Your task to perform on an android device: open app "Venmo" Image 0: 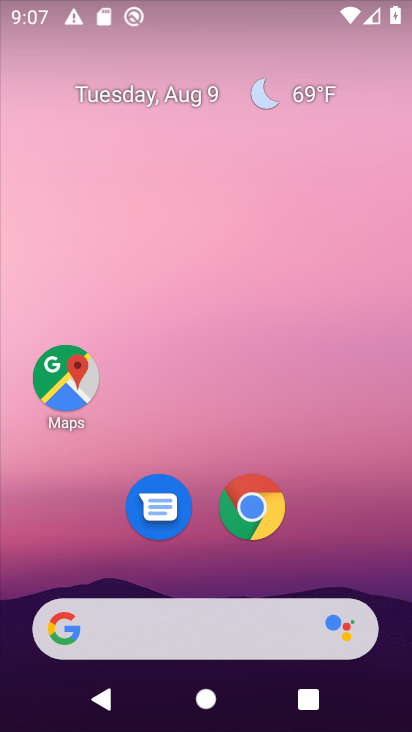
Step 0: press home button
Your task to perform on an android device: open app "Venmo" Image 1: 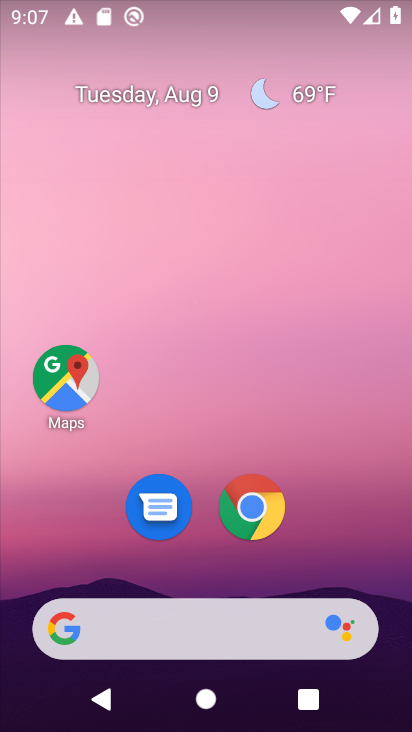
Step 1: drag from (243, 630) to (205, 77)
Your task to perform on an android device: open app "Venmo" Image 2: 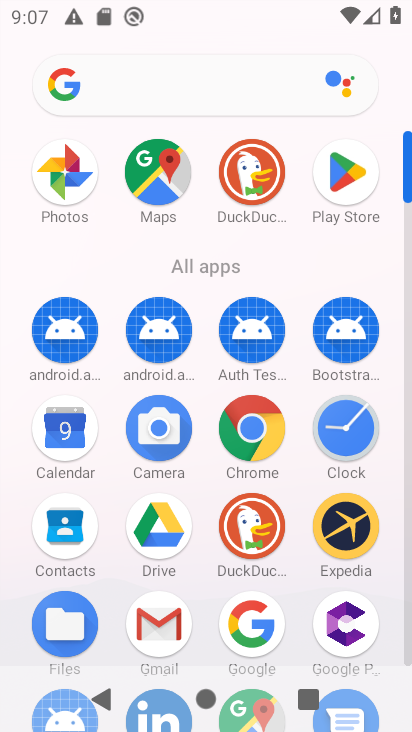
Step 2: click (342, 173)
Your task to perform on an android device: open app "Venmo" Image 3: 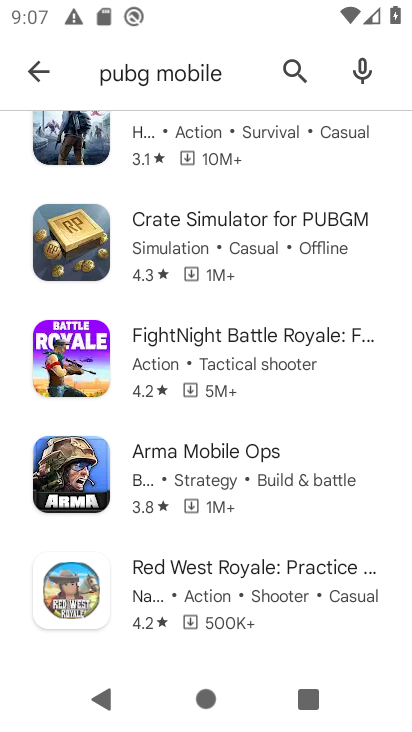
Step 3: click (294, 69)
Your task to perform on an android device: open app "Venmo" Image 4: 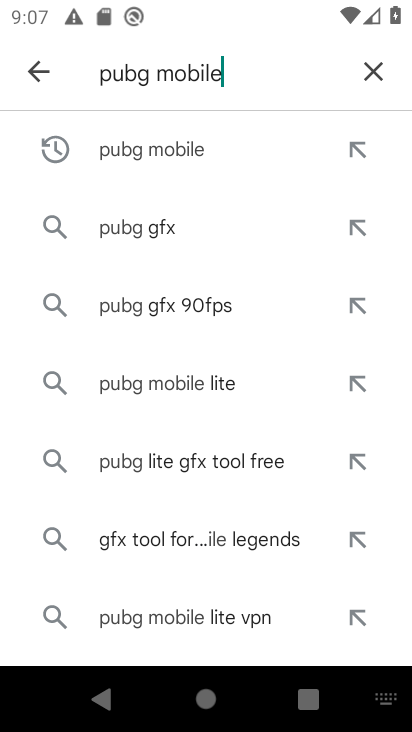
Step 4: click (369, 75)
Your task to perform on an android device: open app "Venmo" Image 5: 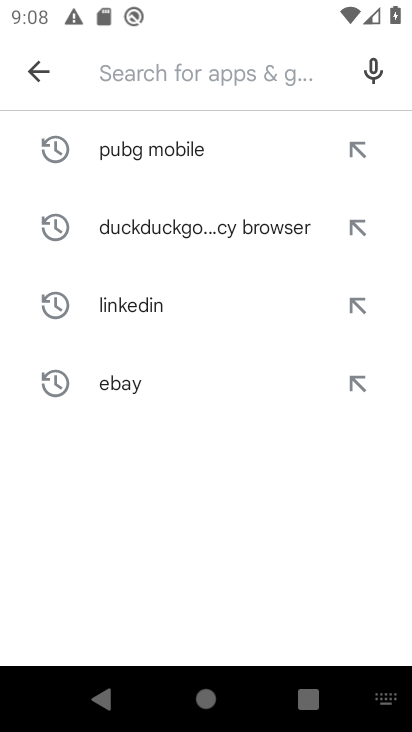
Step 5: type "Venmo"
Your task to perform on an android device: open app "Venmo" Image 6: 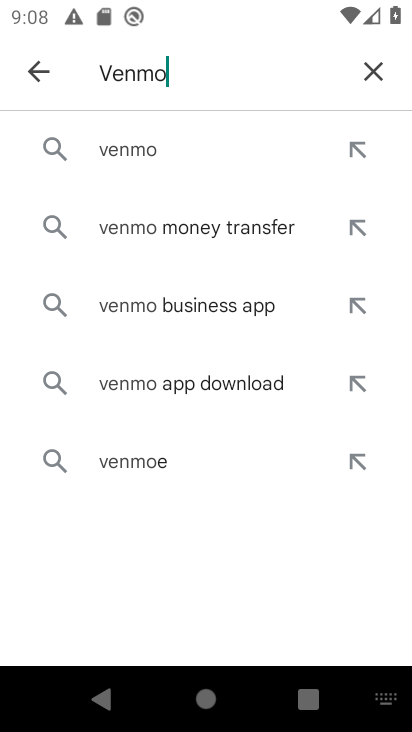
Step 6: click (125, 155)
Your task to perform on an android device: open app "Venmo" Image 7: 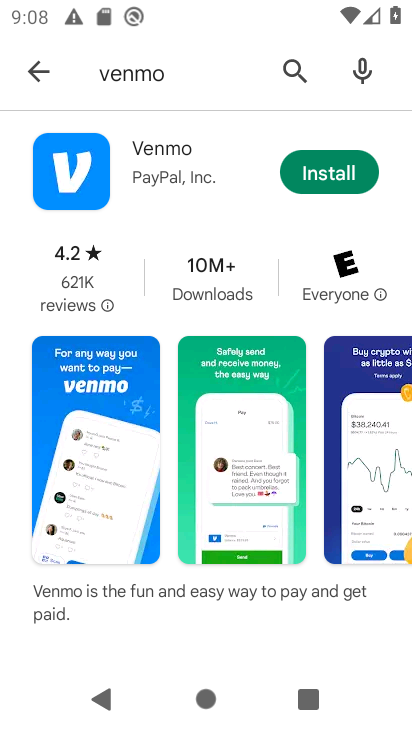
Step 7: task complete